Your task to perform on an android device: Search for sushi restaurants on Maps Image 0: 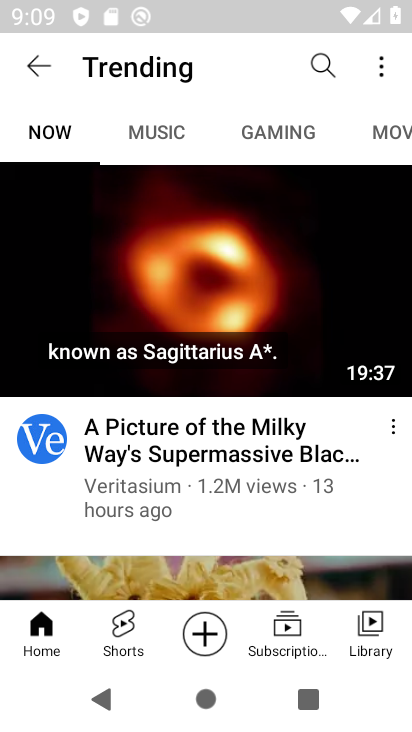
Step 0: press home button
Your task to perform on an android device: Search for sushi restaurants on Maps Image 1: 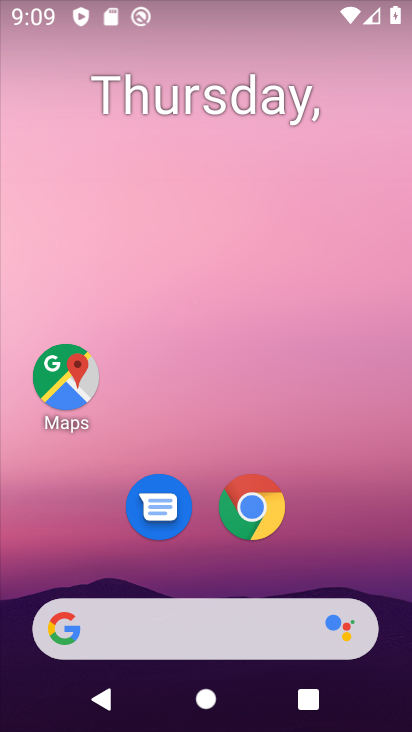
Step 1: click (71, 373)
Your task to perform on an android device: Search for sushi restaurants on Maps Image 2: 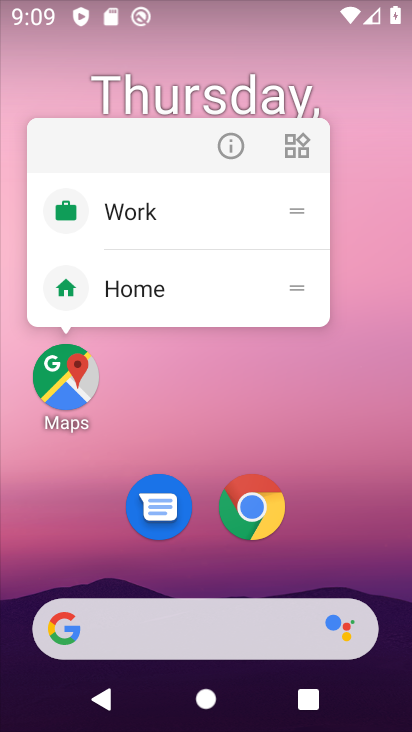
Step 2: click (68, 345)
Your task to perform on an android device: Search for sushi restaurants on Maps Image 3: 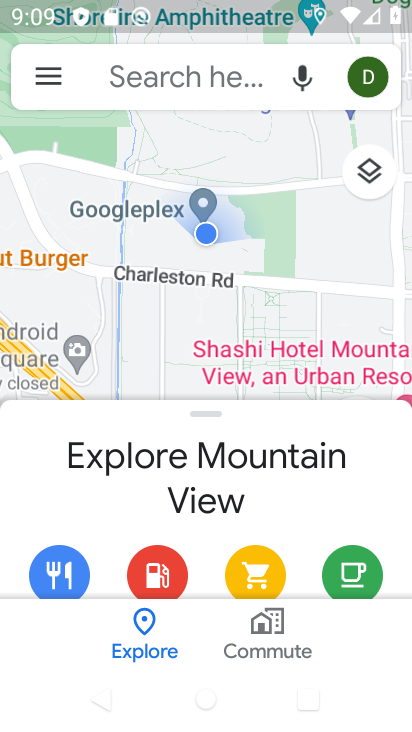
Step 3: click (185, 81)
Your task to perform on an android device: Search for sushi restaurants on Maps Image 4: 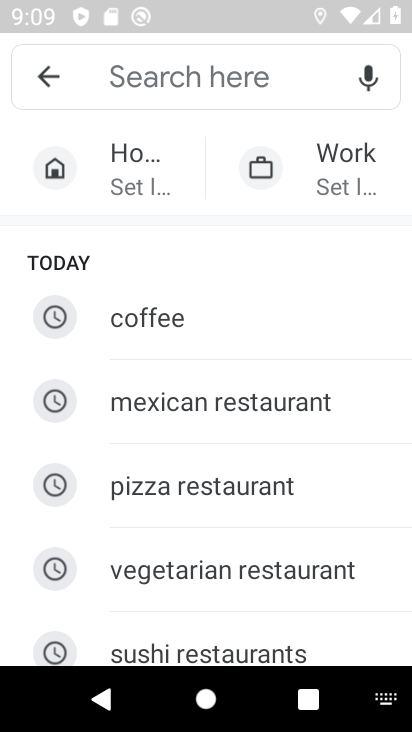
Step 4: type "sushi restaurants"
Your task to perform on an android device: Search for sushi restaurants on Maps Image 5: 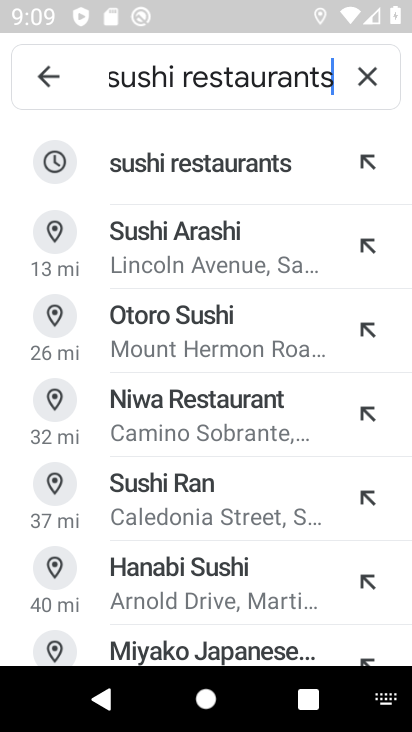
Step 5: click (242, 165)
Your task to perform on an android device: Search for sushi restaurants on Maps Image 6: 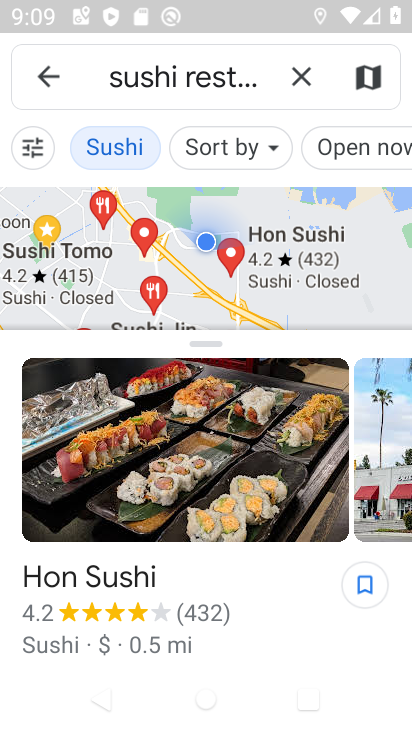
Step 6: task complete